Your task to perform on an android device: remove spam from my inbox in the gmail app Image 0: 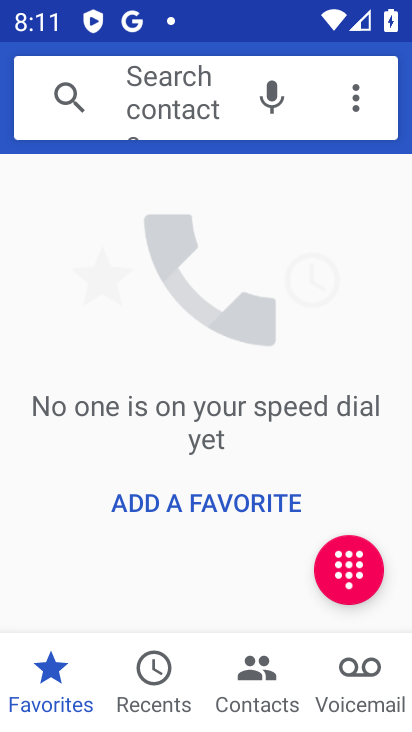
Step 0: press home button
Your task to perform on an android device: remove spam from my inbox in the gmail app Image 1: 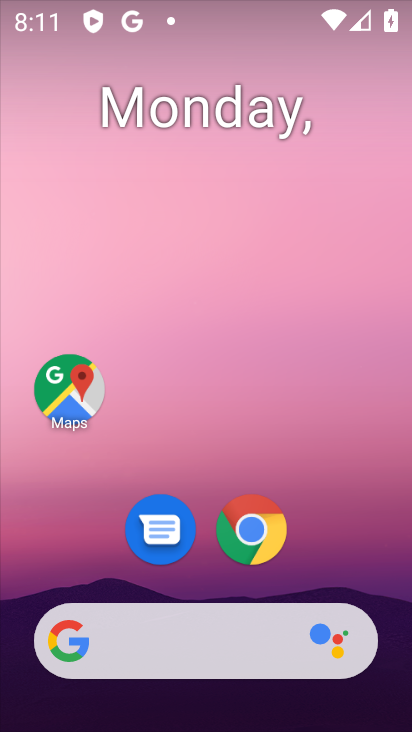
Step 1: drag from (239, 671) to (283, 285)
Your task to perform on an android device: remove spam from my inbox in the gmail app Image 2: 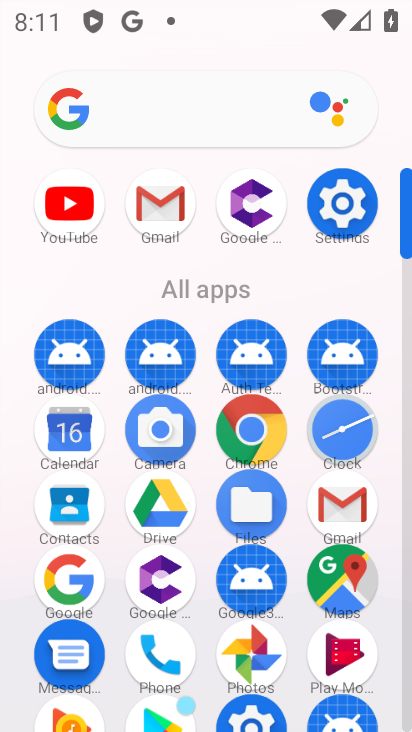
Step 2: click (138, 225)
Your task to perform on an android device: remove spam from my inbox in the gmail app Image 3: 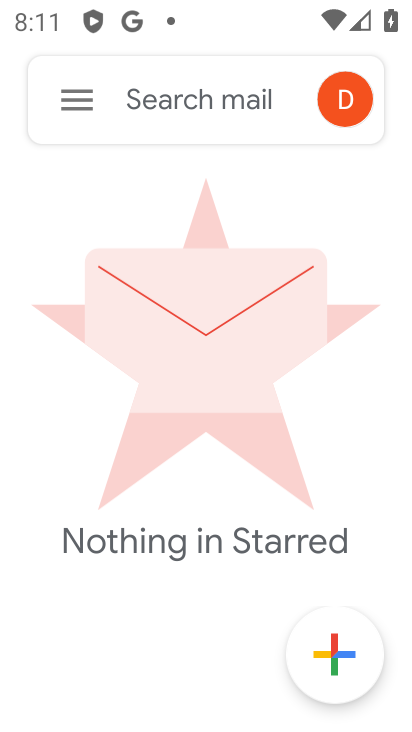
Step 3: click (69, 93)
Your task to perform on an android device: remove spam from my inbox in the gmail app Image 4: 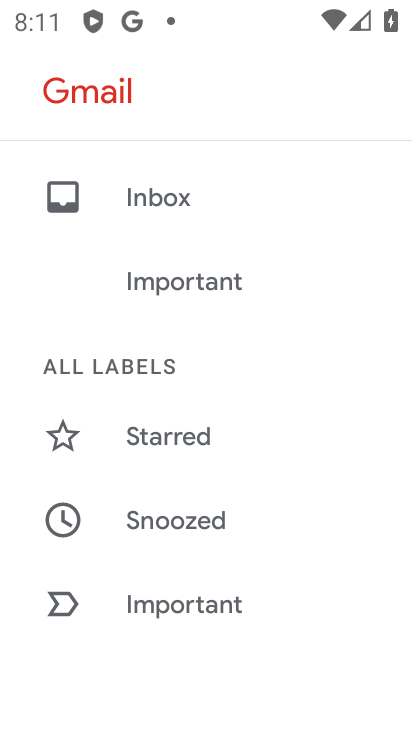
Step 4: drag from (194, 448) to (300, 178)
Your task to perform on an android device: remove spam from my inbox in the gmail app Image 5: 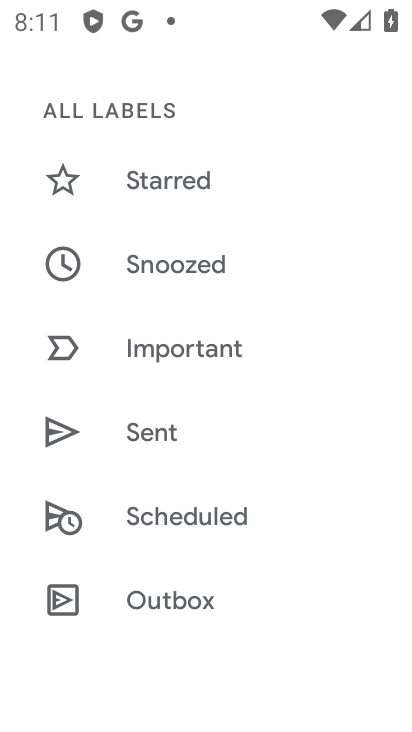
Step 5: drag from (194, 533) to (279, 365)
Your task to perform on an android device: remove spam from my inbox in the gmail app Image 6: 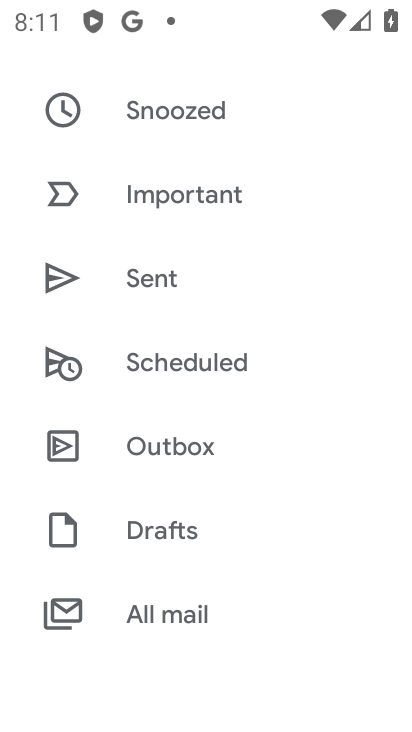
Step 6: drag from (186, 581) to (276, 389)
Your task to perform on an android device: remove spam from my inbox in the gmail app Image 7: 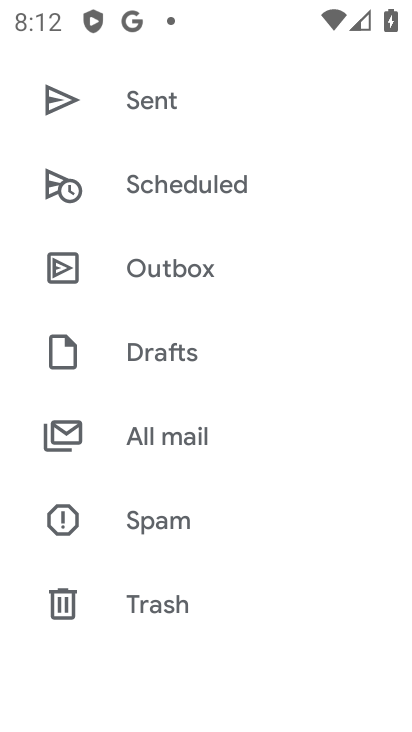
Step 7: click (164, 522)
Your task to perform on an android device: remove spam from my inbox in the gmail app Image 8: 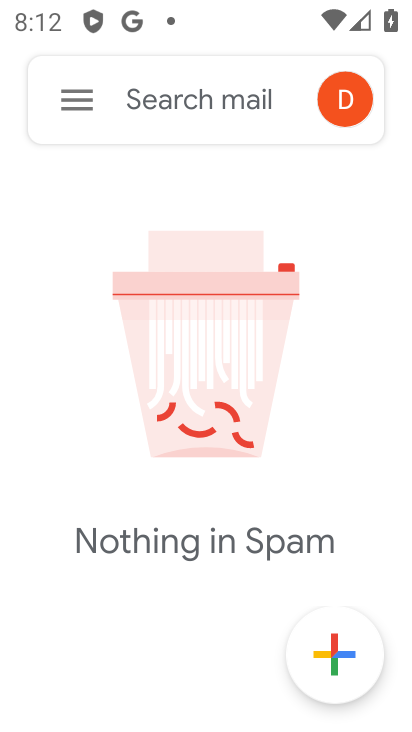
Step 8: task complete